Your task to perform on an android device: Find coffee shops on Maps Image 0: 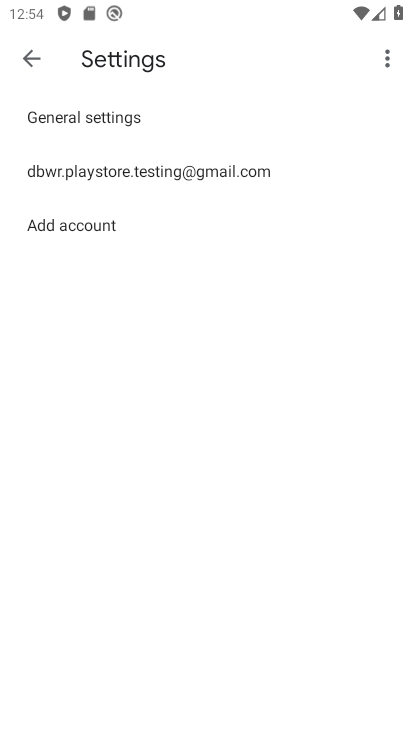
Step 0: press back button
Your task to perform on an android device: Find coffee shops on Maps Image 1: 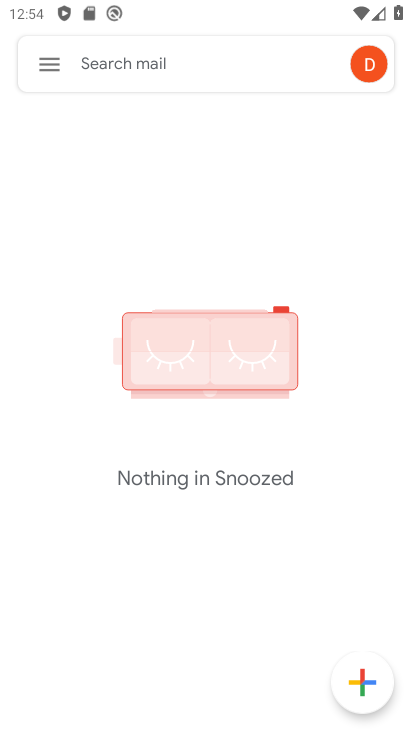
Step 1: press back button
Your task to perform on an android device: Find coffee shops on Maps Image 2: 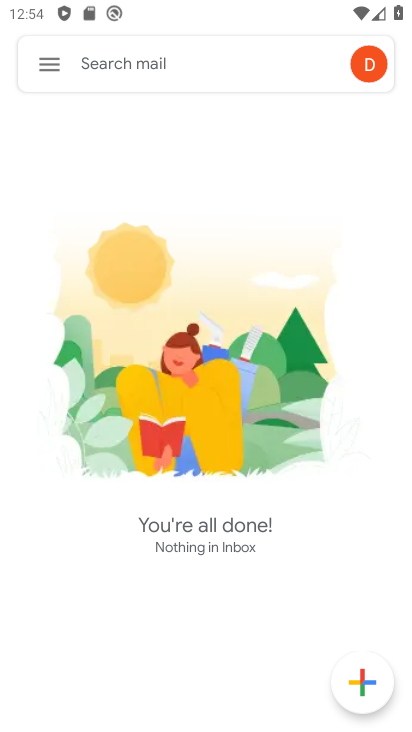
Step 2: press back button
Your task to perform on an android device: Find coffee shops on Maps Image 3: 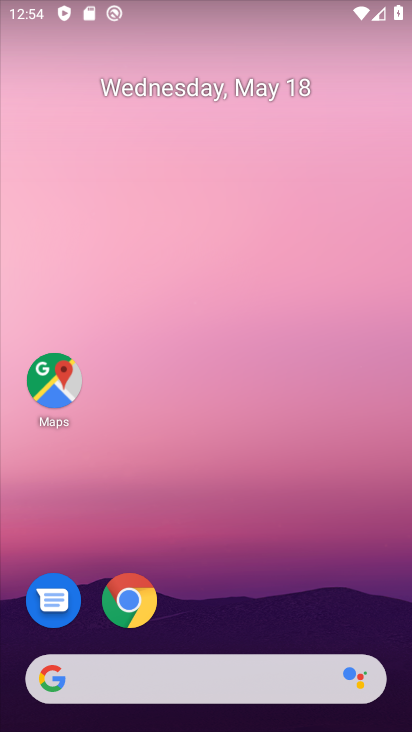
Step 3: click (57, 382)
Your task to perform on an android device: Find coffee shops on Maps Image 4: 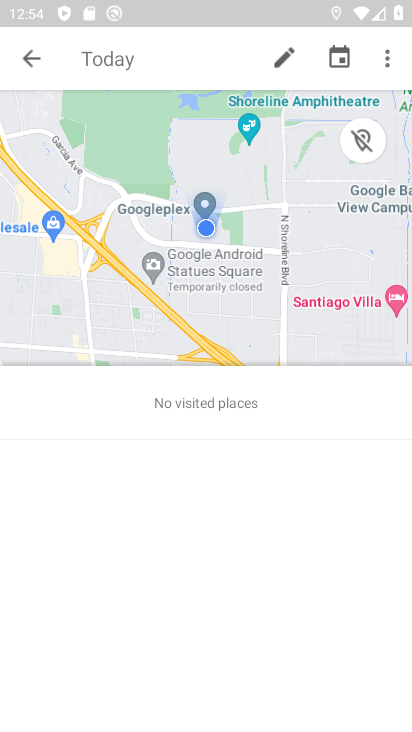
Step 4: click (39, 60)
Your task to perform on an android device: Find coffee shops on Maps Image 5: 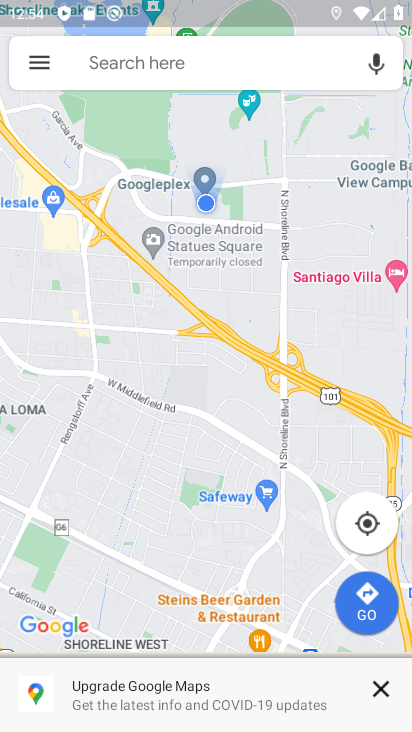
Step 5: click (110, 66)
Your task to perform on an android device: Find coffee shops on Maps Image 6: 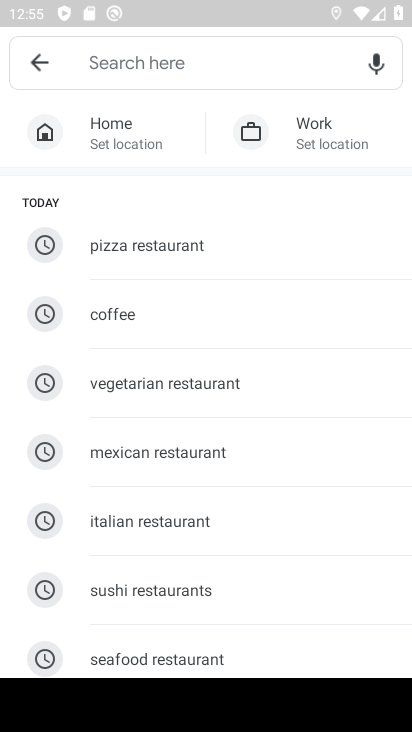
Step 6: type "coffee shops"
Your task to perform on an android device: Find coffee shops on Maps Image 7: 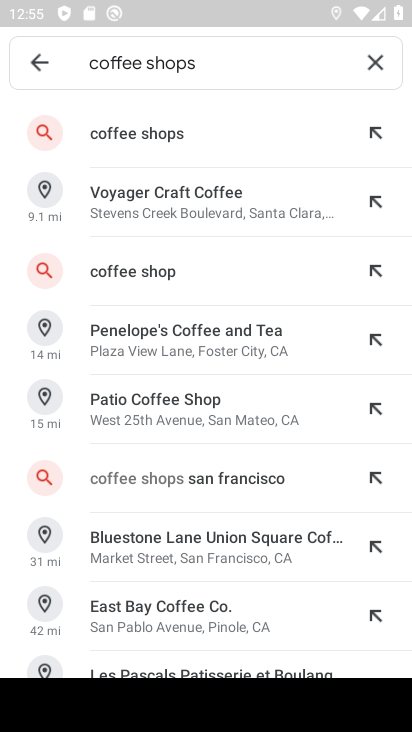
Step 7: click (144, 133)
Your task to perform on an android device: Find coffee shops on Maps Image 8: 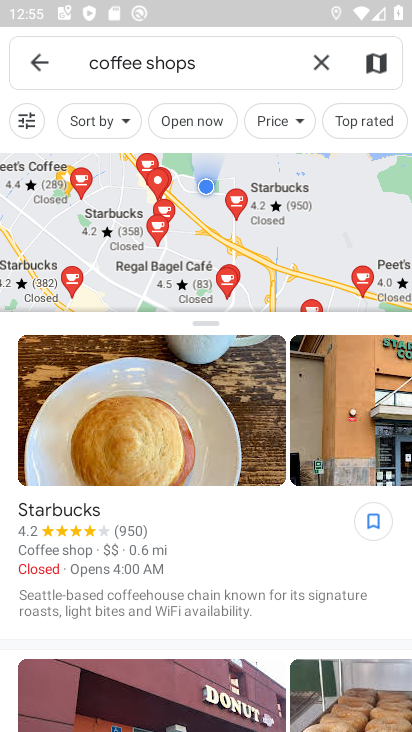
Step 8: task complete